Your task to perform on an android device: Play the last video I watched on Youtube Image 0: 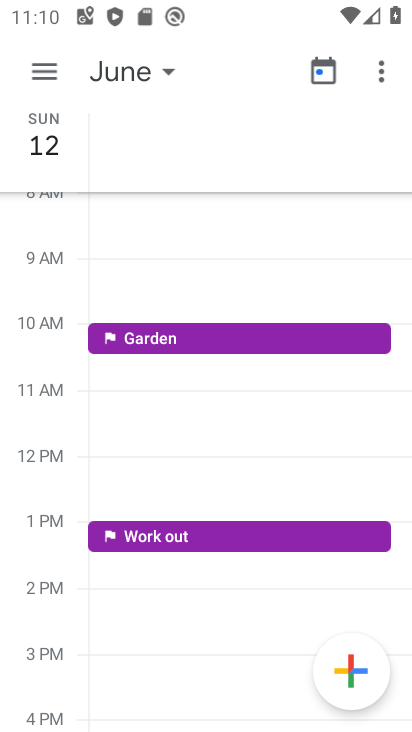
Step 0: press home button
Your task to perform on an android device: Play the last video I watched on Youtube Image 1: 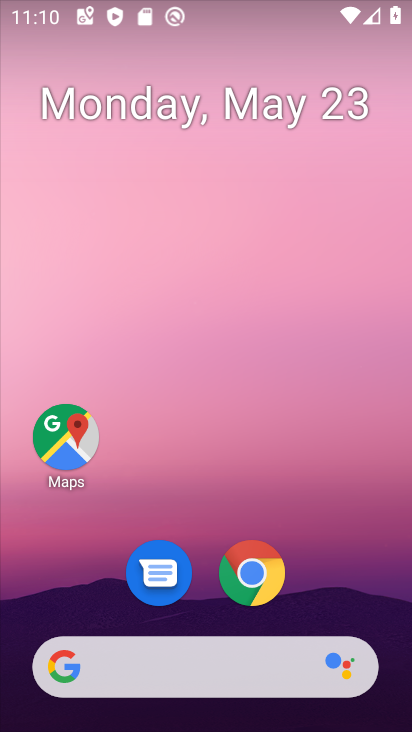
Step 1: drag from (365, 582) to (360, 172)
Your task to perform on an android device: Play the last video I watched on Youtube Image 2: 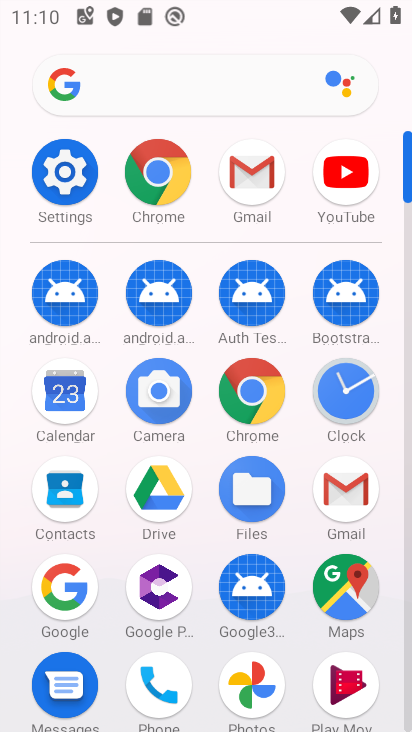
Step 2: click (333, 192)
Your task to perform on an android device: Play the last video I watched on Youtube Image 3: 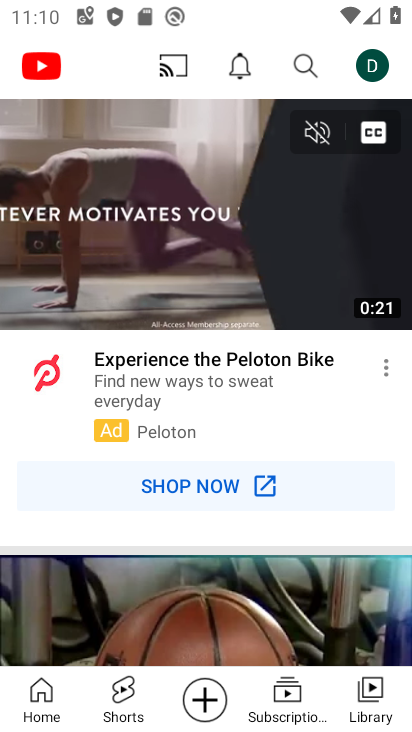
Step 3: click (367, 711)
Your task to perform on an android device: Play the last video I watched on Youtube Image 4: 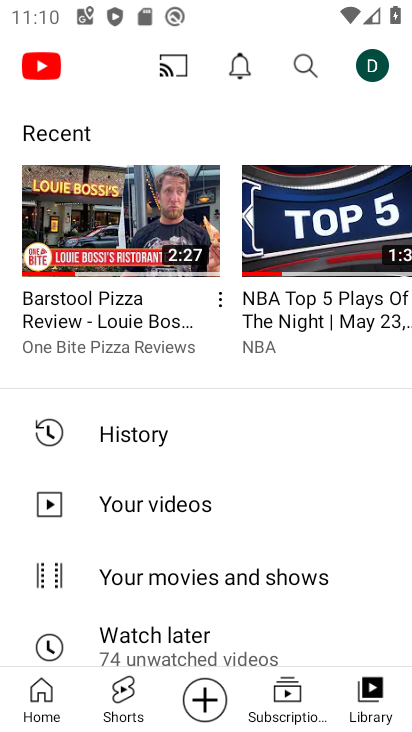
Step 4: click (172, 208)
Your task to perform on an android device: Play the last video I watched on Youtube Image 5: 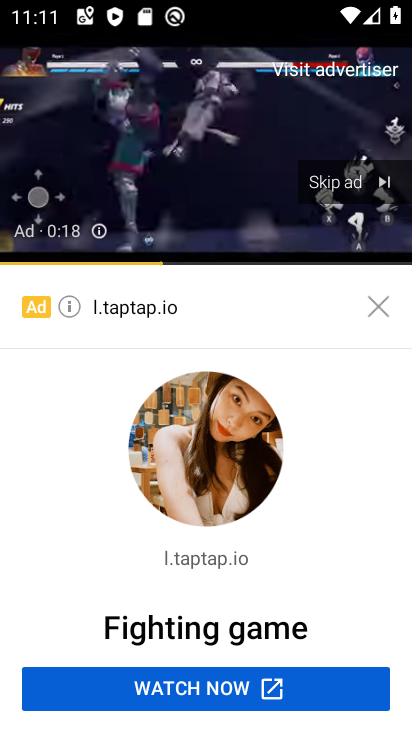
Step 5: click (329, 179)
Your task to perform on an android device: Play the last video I watched on Youtube Image 6: 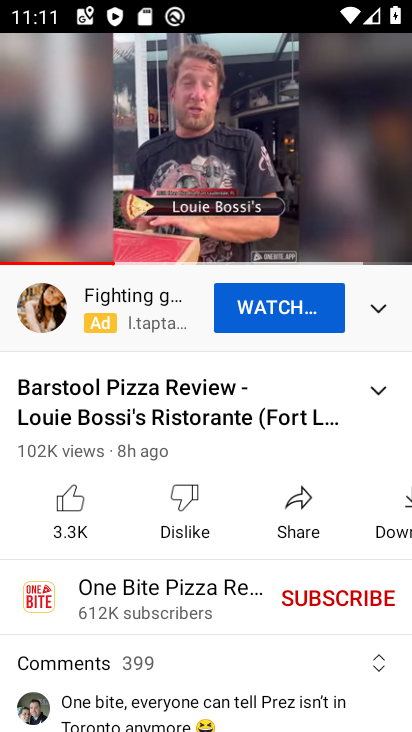
Step 6: task complete